Your task to perform on an android device: remove spam from my inbox in the gmail app Image 0: 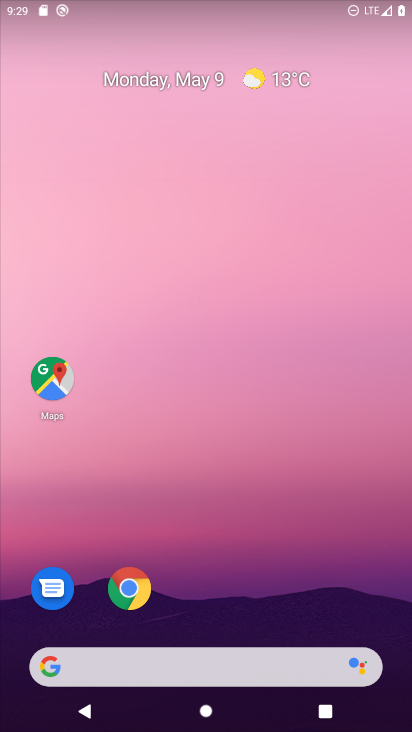
Step 0: drag from (299, 568) to (261, 79)
Your task to perform on an android device: remove spam from my inbox in the gmail app Image 1: 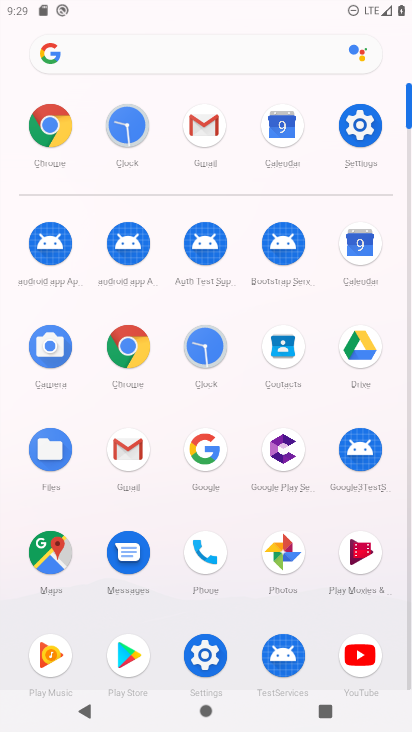
Step 1: click (227, 140)
Your task to perform on an android device: remove spam from my inbox in the gmail app Image 2: 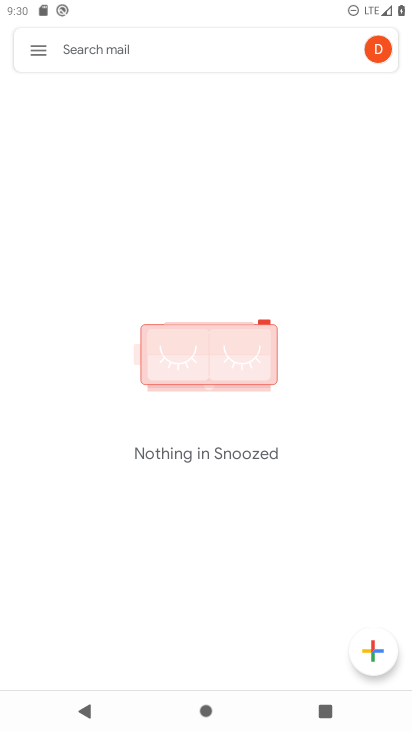
Step 2: press home button
Your task to perform on an android device: remove spam from my inbox in the gmail app Image 3: 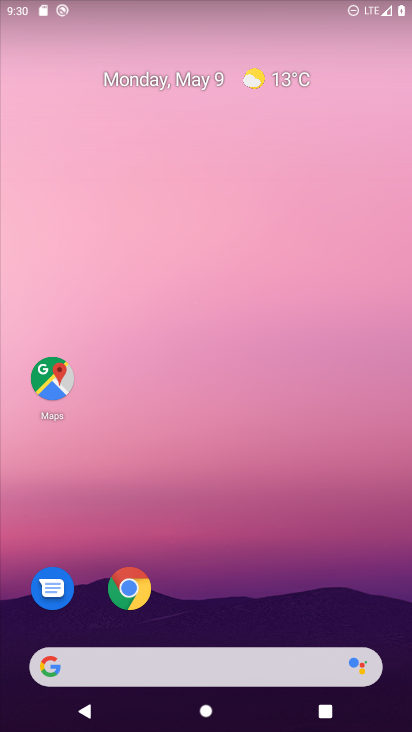
Step 3: drag from (317, 553) to (290, 252)
Your task to perform on an android device: remove spam from my inbox in the gmail app Image 4: 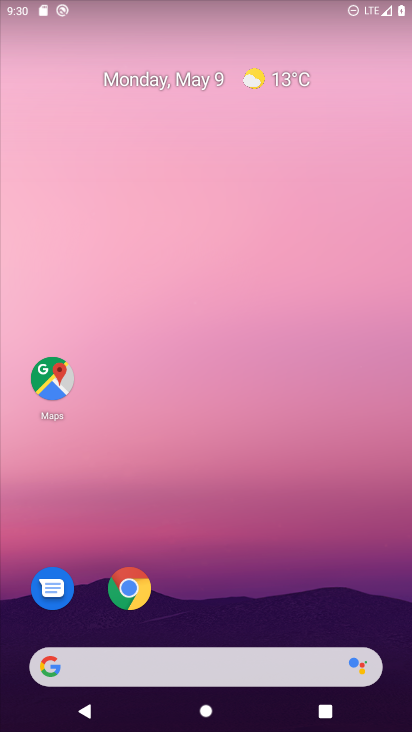
Step 4: drag from (234, 562) to (227, 158)
Your task to perform on an android device: remove spam from my inbox in the gmail app Image 5: 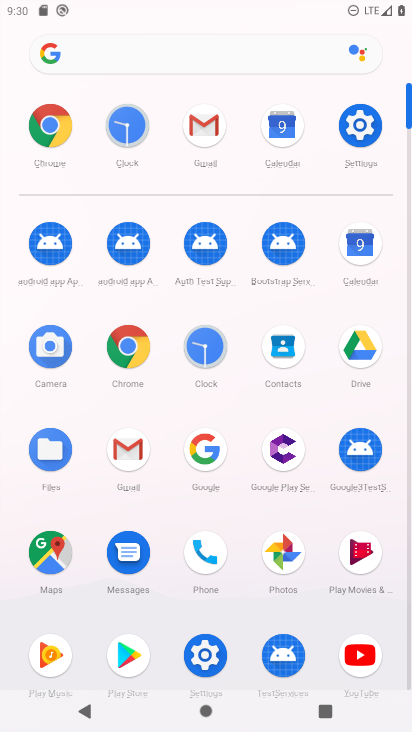
Step 5: click (121, 451)
Your task to perform on an android device: remove spam from my inbox in the gmail app Image 6: 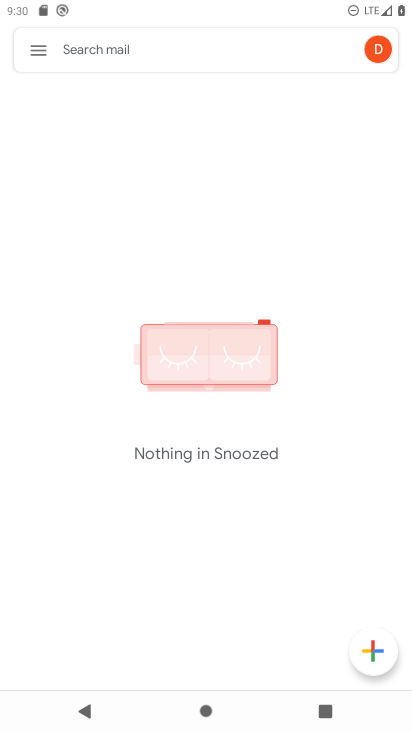
Step 6: click (22, 62)
Your task to perform on an android device: remove spam from my inbox in the gmail app Image 7: 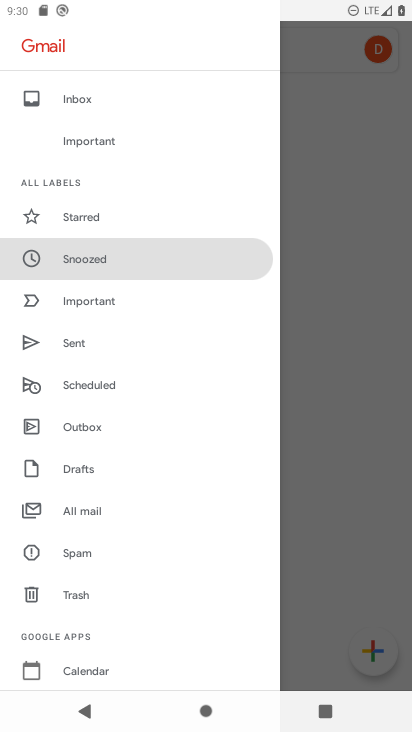
Step 7: click (88, 543)
Your task to perform on an android device: remove spam from my inbox in the gmail app Image 8: 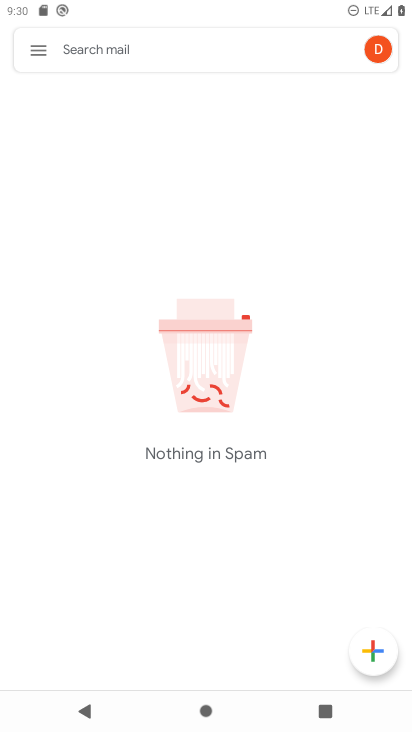
Step 8: task complete